Your task to perform on an android device: Go to CNN.com Image 0: 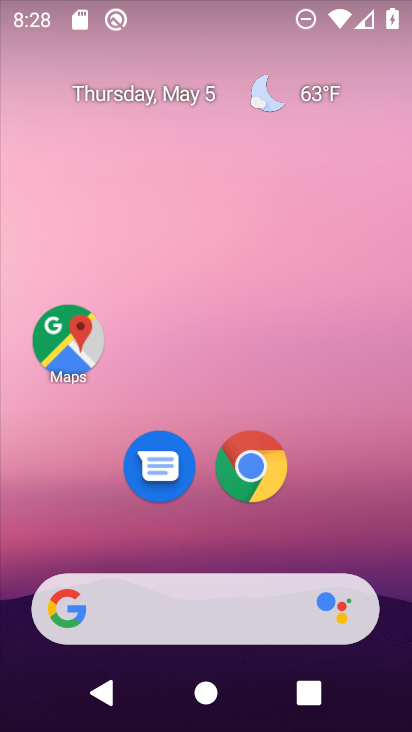
Step 0: click (269, 466)
Your task to perform on an android device: Go to CNN.com Image 1: 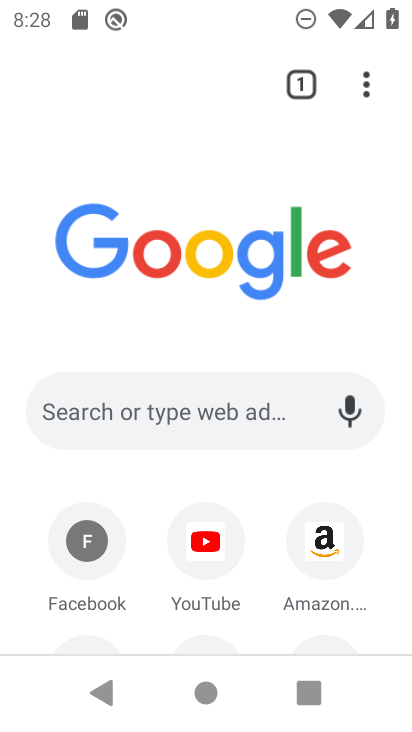
Step 1: click (244, 390)
Your task to perform on an android device: Go to CNN.com Image 2: 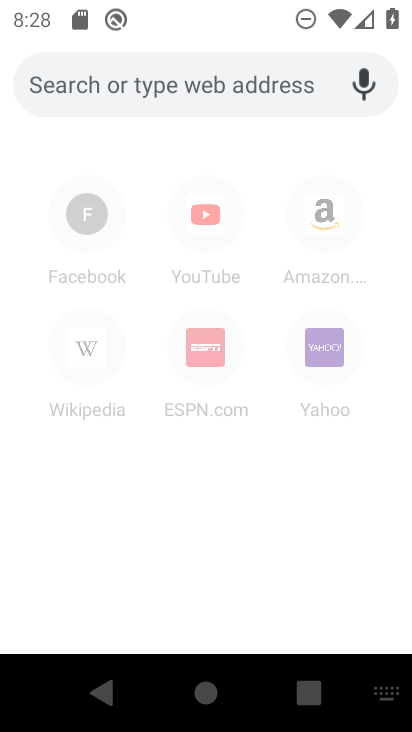
Step 2: type "cnn.com"
Your task to perform on an android device: Go to CNN.com Image 3: 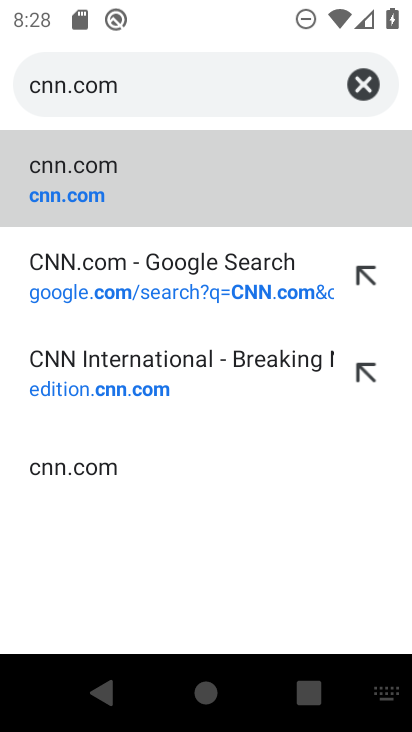
Step 3: click (213, 205)
Your task to perform on an android device: Go to CNN.com Image 4: 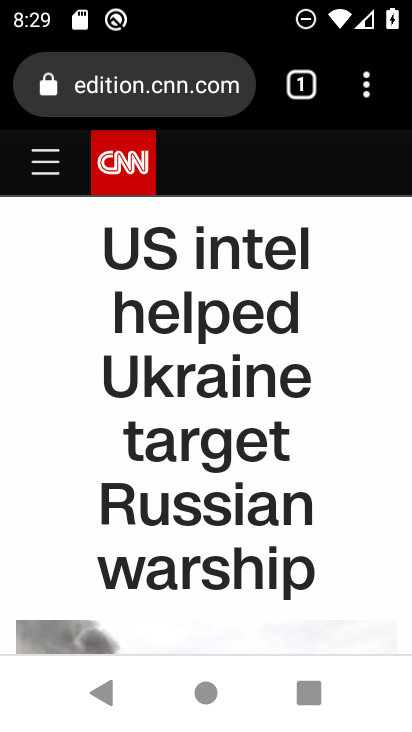
Step 4: task complete